Your task to perform on an android device: choose inbox layout in the gmail app Image 0: 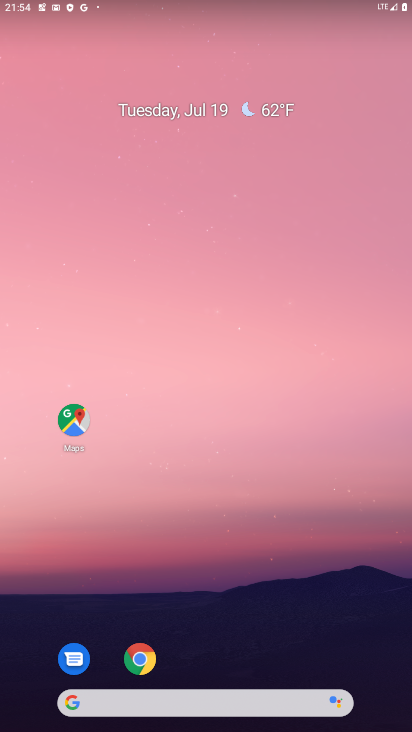
Step 0: drag from (240, 627) to (326, 159)
Your task to perform on an android device: choose inbox layout in the gmail app Image 1: 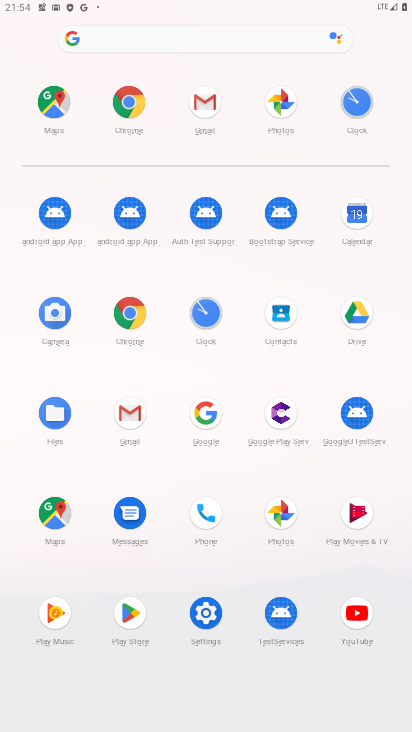
Step 1: click (123, 415)
Your task to perform on an android device: choose inbox layout in the gmail app Image 2: 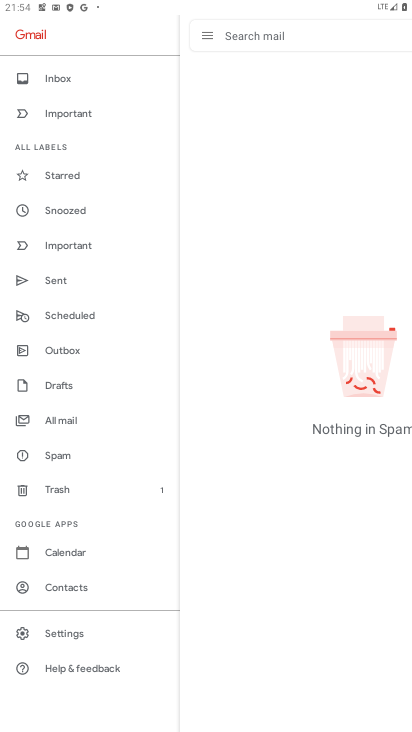
Step 2: click (64, 632)
Your task to perform on an android device: choose inbox layout in the gmail app Image 3: 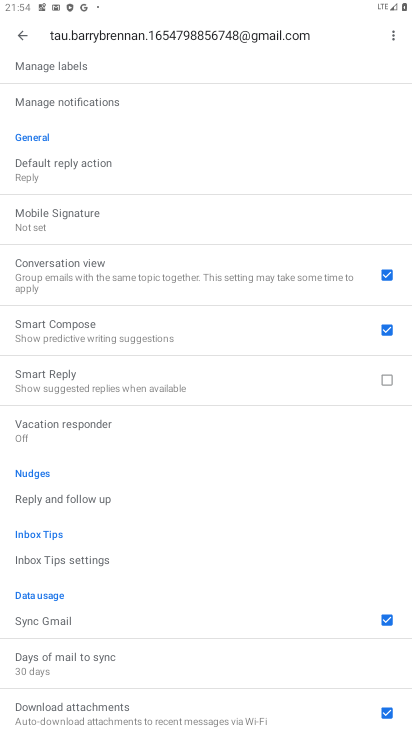
Step 3: drag from (113, 89) to (26, 627)
Your task to perform on an android device: choose inbox layout in the gmail app Image 4: 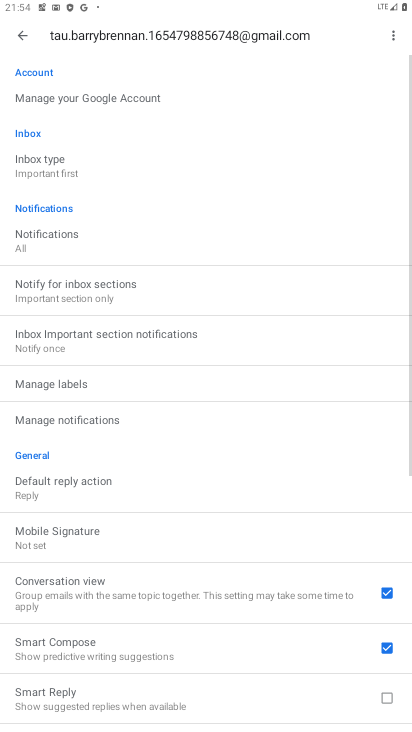
Step 4: click (43, 164)
Your task to perform on an android device: choose inbox layout in the gmail app Image 5: 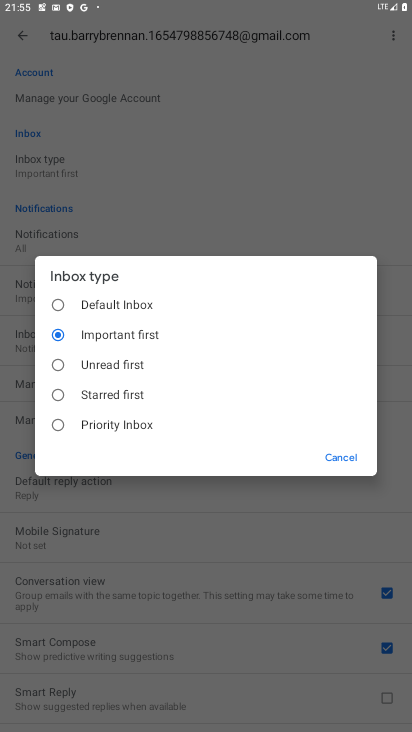
Step 5: click (110, 417)
Your task to perform on an android device: choose inbox layout in the gmail app Image 6: 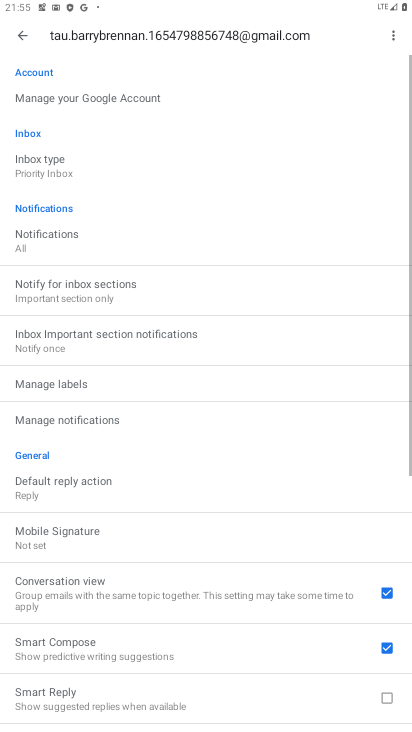
Step 6: task complete